Your task to perform on an android device: Open CNN.com Image 0: 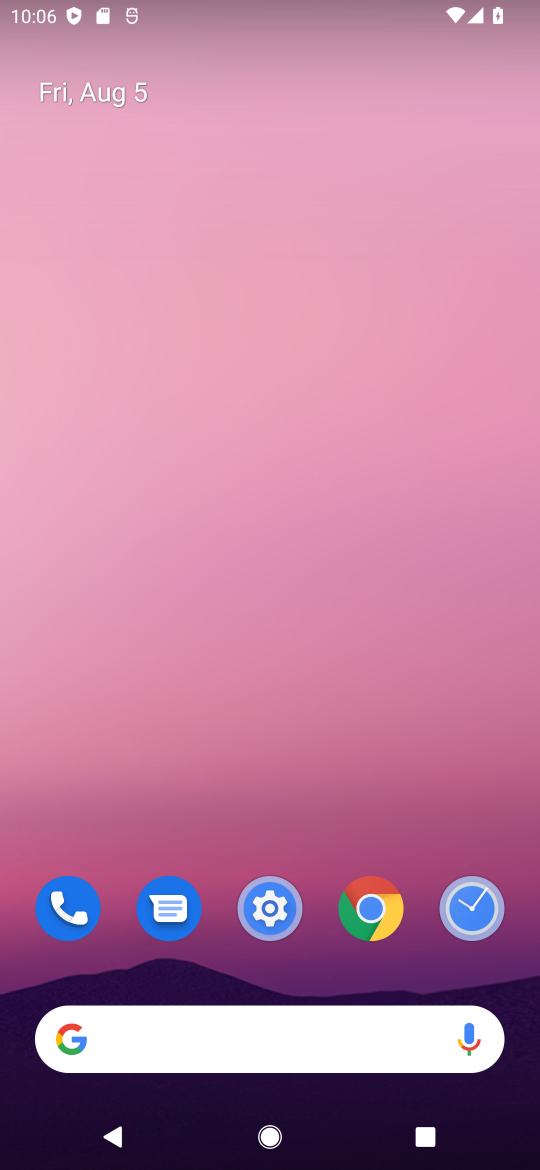
Step 0: click (376, 906)
Your task to perform on an android device: Open CNN.com Image 1: 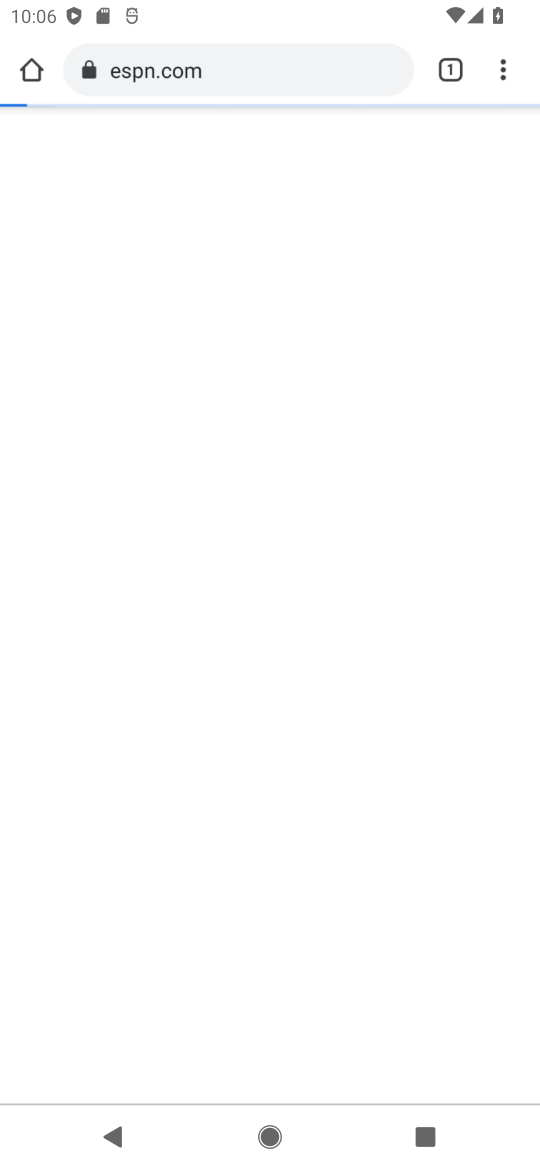
Step 1: task complete